Your task to perform on an android device: toggle show notifications on the lock screen Image 0: 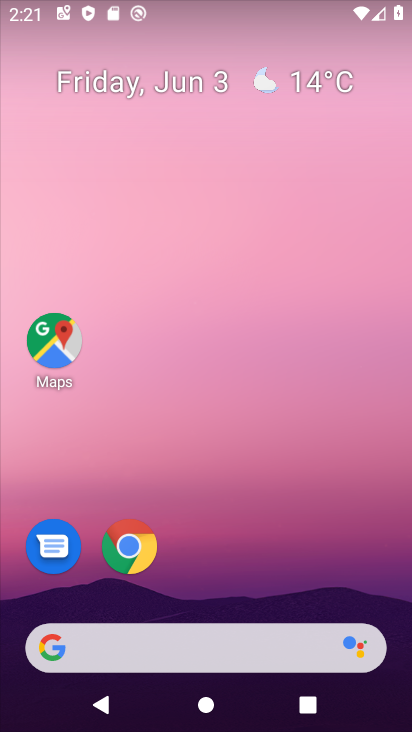
Step 0: drag from (273, 228) to (208, 15)
Your task to perform on an android device: toggle show notifications on the lock screen Image 1: 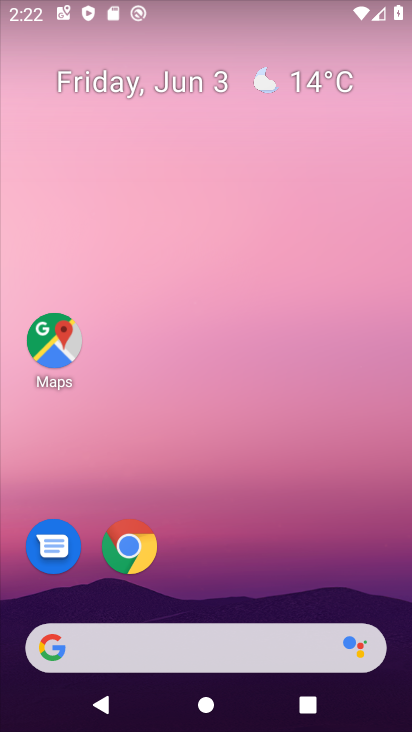
Step 1: drag from (240, 600) to (219, 129)
Your task to perform on an android device: toggle show notifications on the lock screen Image 2: 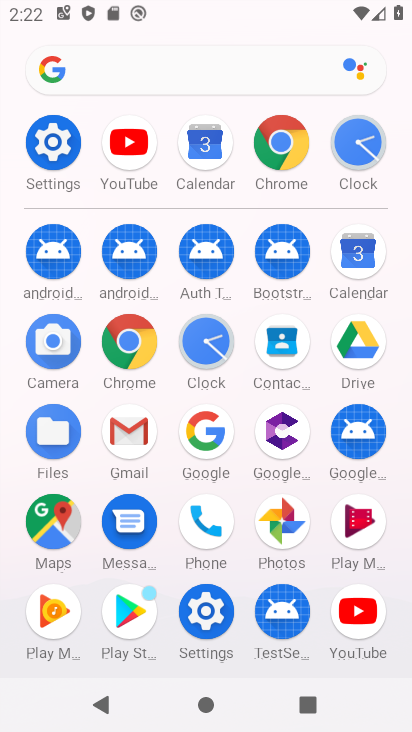
Step 2: click (55, 126)
Your task to perform on an android device: toggle show notifications on the lock screen Image 3: 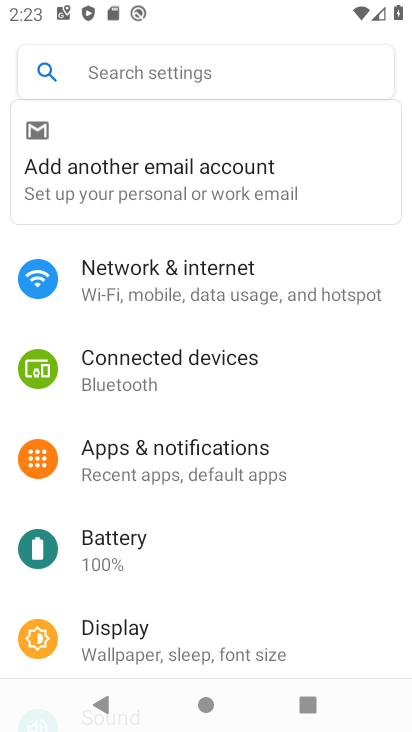
Step 3: click (209, 475)
Your task to perform on an android device: toggle show notifications on the lock screen Image 4: 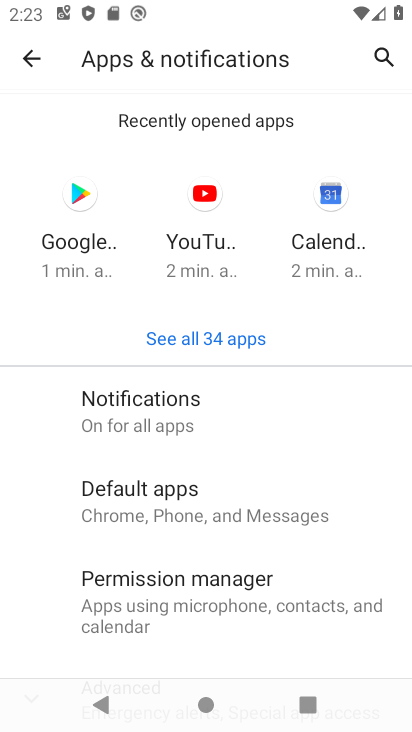
Step 4: click (159, 419)
Your task to perform on an android device: toggle show notifications on the lock screen Image 5: 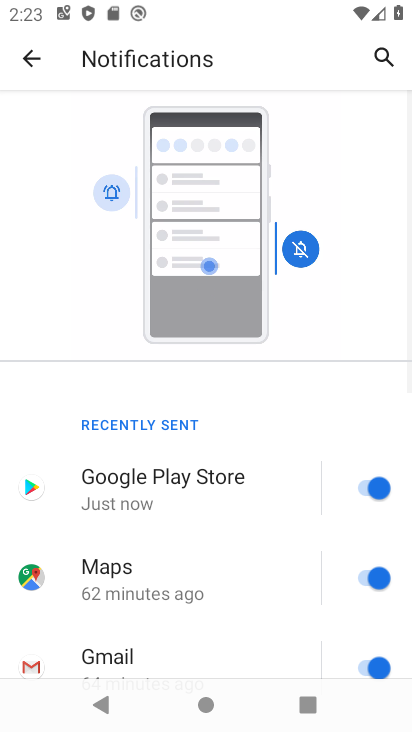
Step 5: drag from (200, 639) to (235, 191)
Your task to perform on an android device: toggle show notifications on the lock screen Image 6: 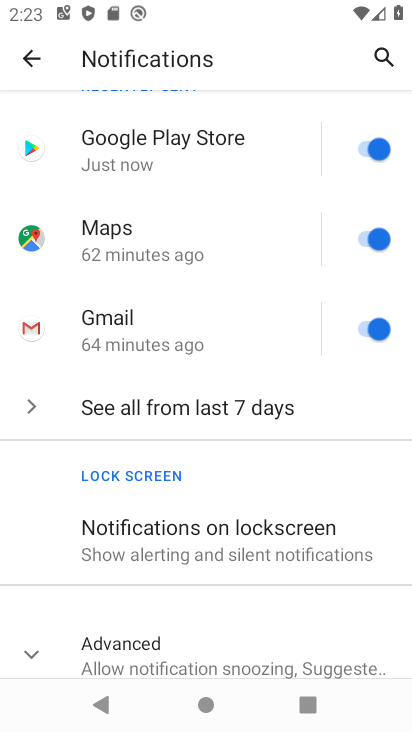
Step 6: click (208, 543)
Your task to perform on an android device: toggle show notifications on the lock screen Image 7: 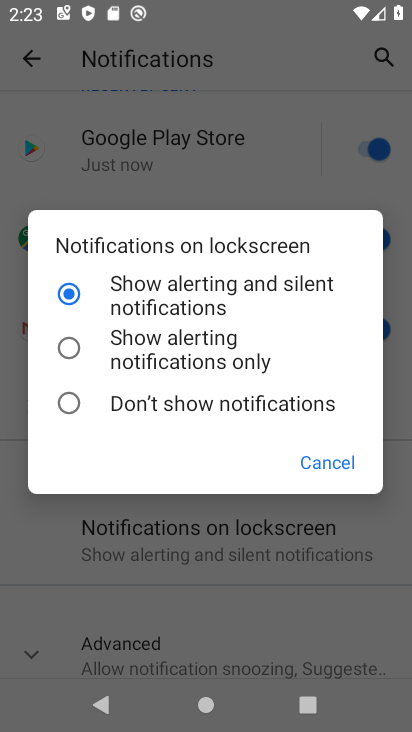
Step 7: click (143, 357)
Your task to perform on an android device: toggle show notifications on the lock screen Image 8: 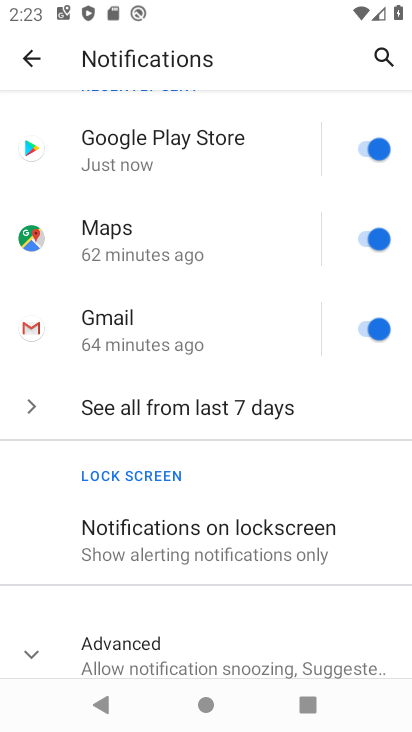
Step 8: task complete